Your task to perform on an android device: Find coffee shops on Maps Image 0: 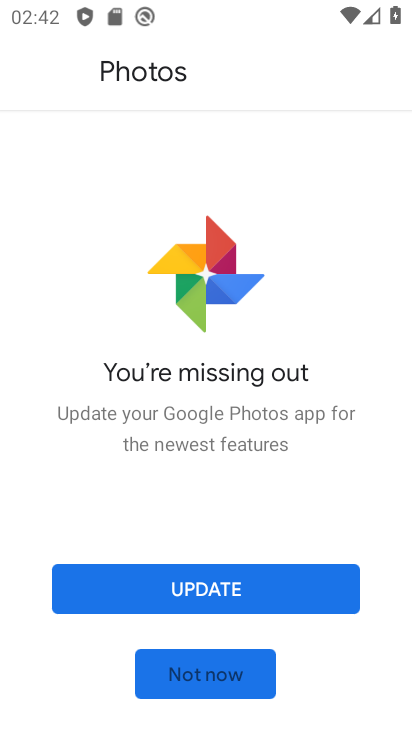
Step 0: press home button
Your task to perform on an android device: Find coffee shops on Maps Image 1: 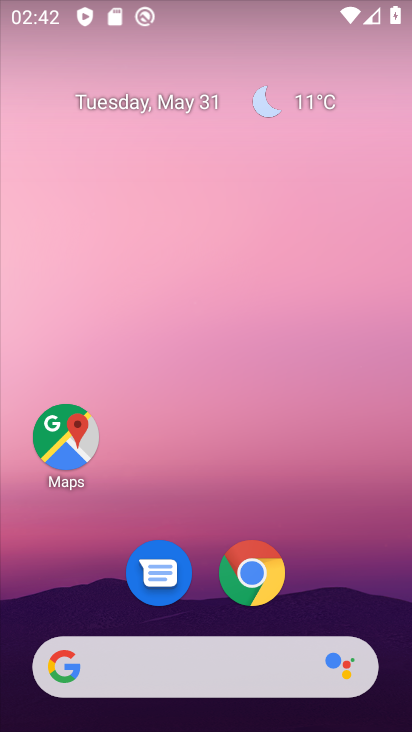
Step 1: click (54, 425)
Your task to perform on an android device: Find coffee shops on Maps Image 2: 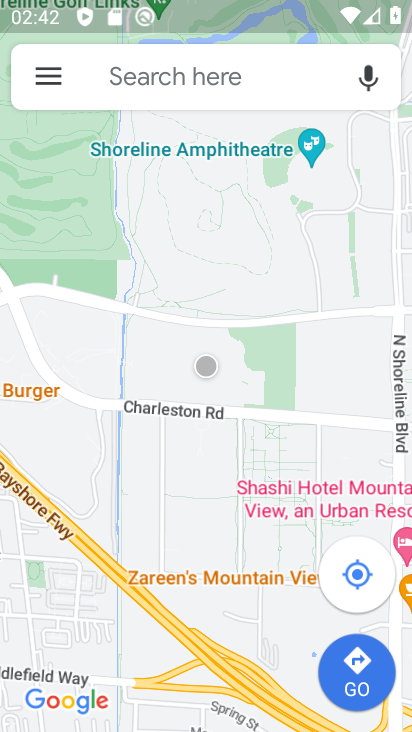
Step 2: click (211, 94)
Your task to perform on an android device: Find coffee shops on Maps Image 3: 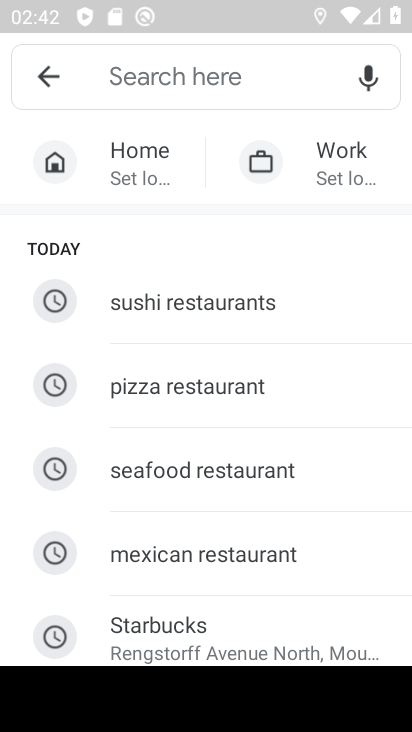
Step 3: type "coffee shops"
Your task to perform on an android device: Find coffee shops on Maps Image 4: 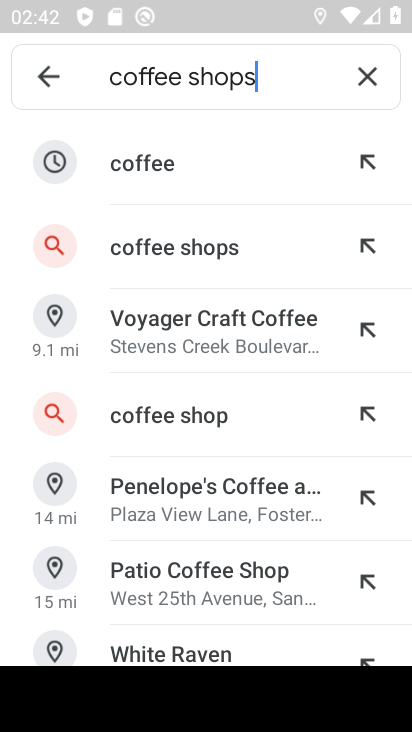
Step 4: click (214, 246)
Your task to perform on an android device: Find coffee shops on Maps Image 5: 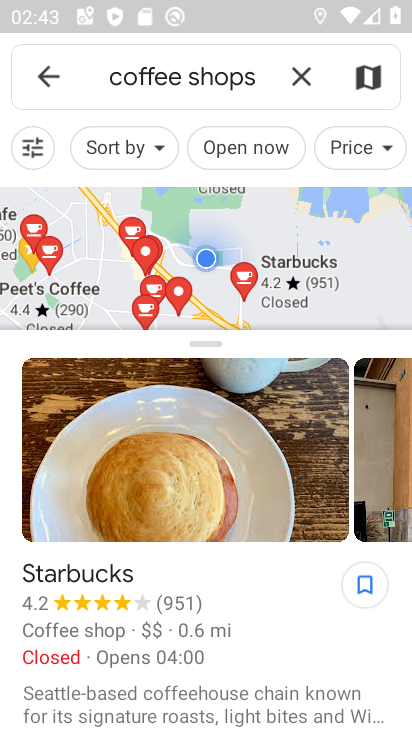
Step 5: task complete